Your task to perform on an android device: toggle airplane mode Image 0: 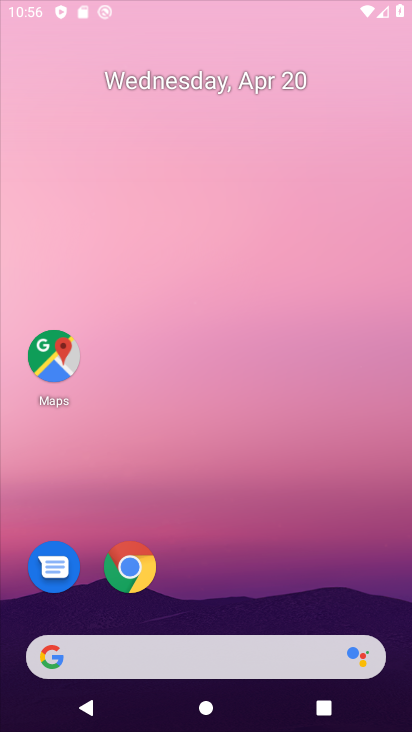
Step 0: drag from (210, 1) to (321, 58)
Your task to perform on an android device: toggle airplane mode Image 1: 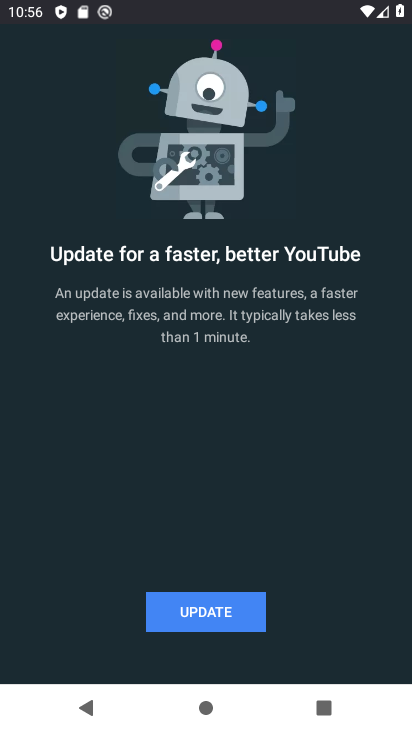
Step 1: press home button
Your task to perform on an android device: toggle airplane mode Image 2: 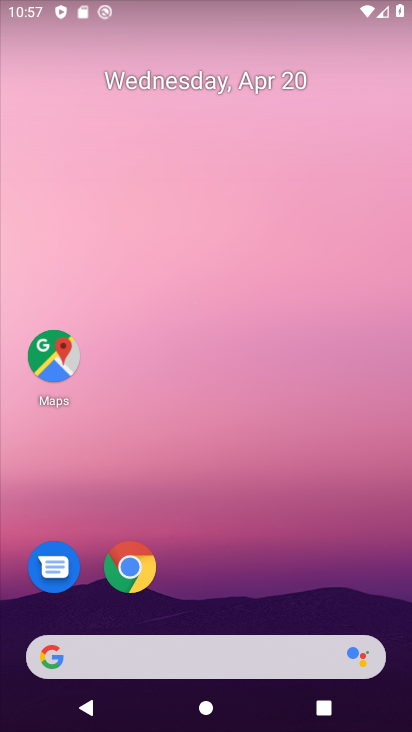
Step 2: drag from (206, 624) to (277, 13)
Your task to perform on an android device: toggle airplane mode Image 3: 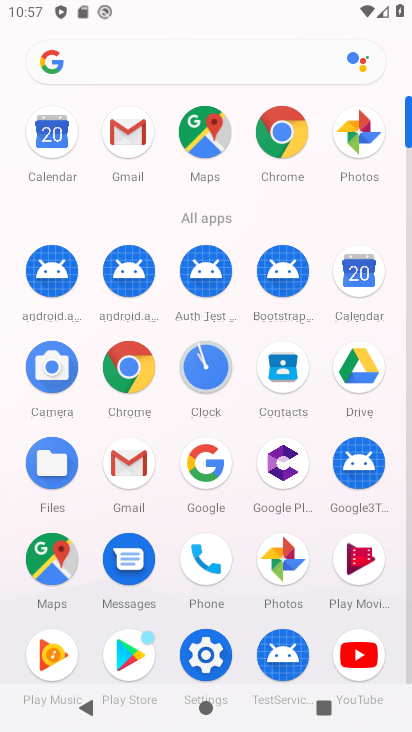
Step 3: click (216, 651)
Your task to perform on an android device: toggle airplane mode Image 4: 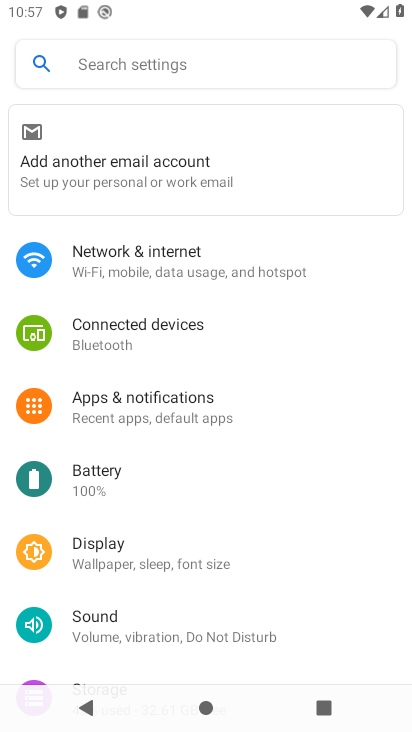
Step 4: click (174, 262)
Your task to perform on an android device: toggle airplane mode Image 5: 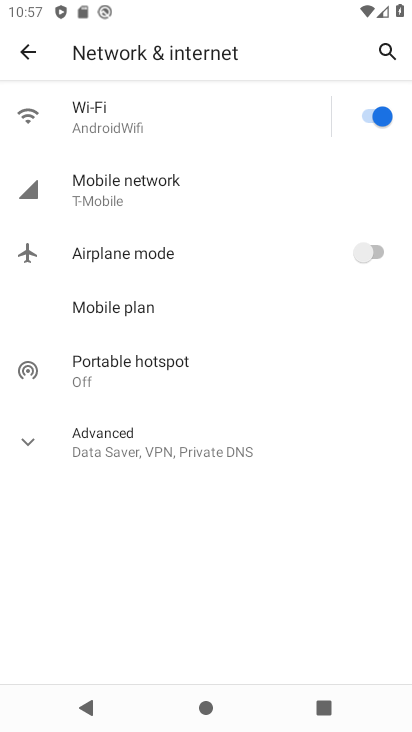
Step 5: click (371, 256)
Your task to perform on an android device: toggle airplane mode Image 6: 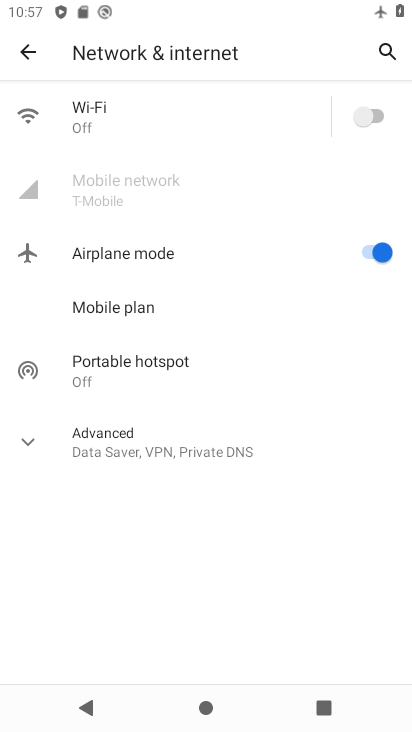
Step 6: task complete